Your task to perform on an android device: Go to CNN.com Image 0: 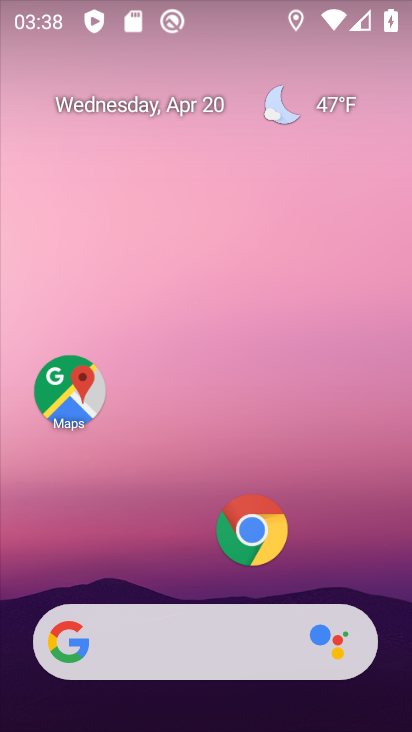
Step 0: click (264, 527)
Your task to perform on an android device: Go to CNN.com Image 1: 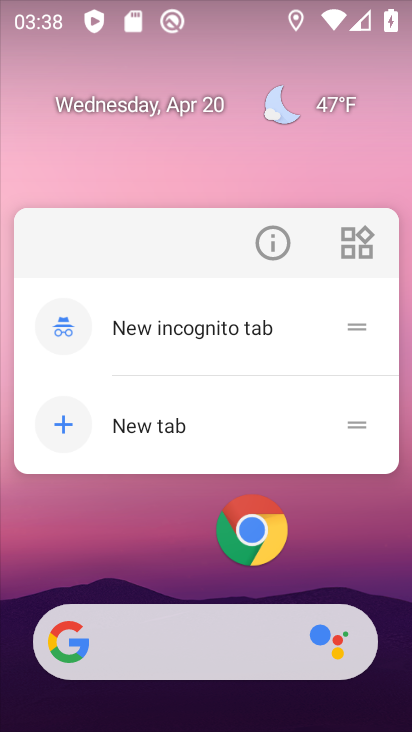
Step 1: click (257, 516)
Your task to perform on an android device: Go to CNN.com Image 2: 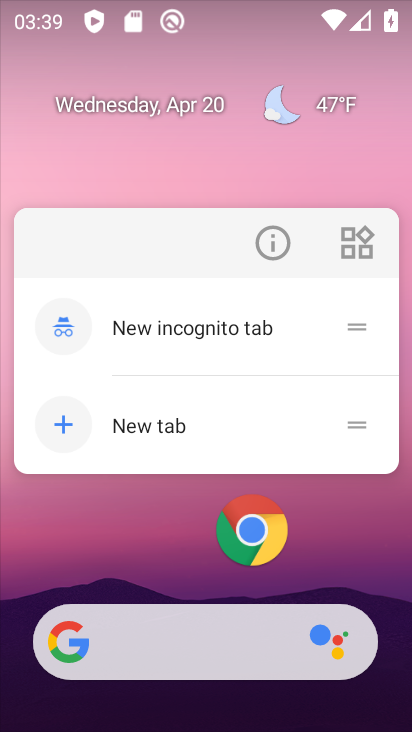
Step 2: click (241, 525)
Your task to perform on an android device: Go to CNN.com Image 3: 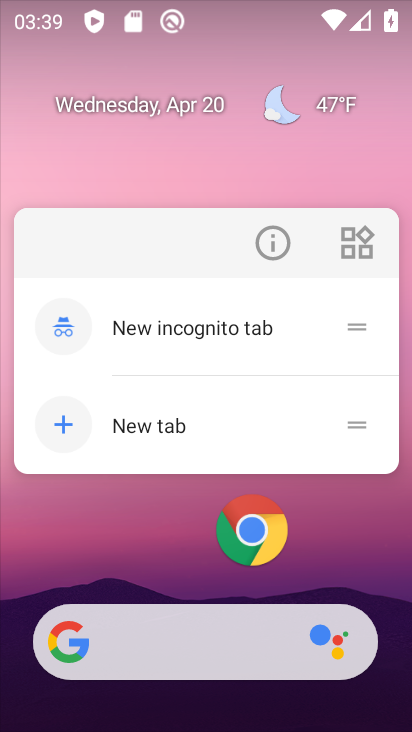
Step 3: click (261, 531)
Your task to perform on an android device: Go to CNN.com Image 4: 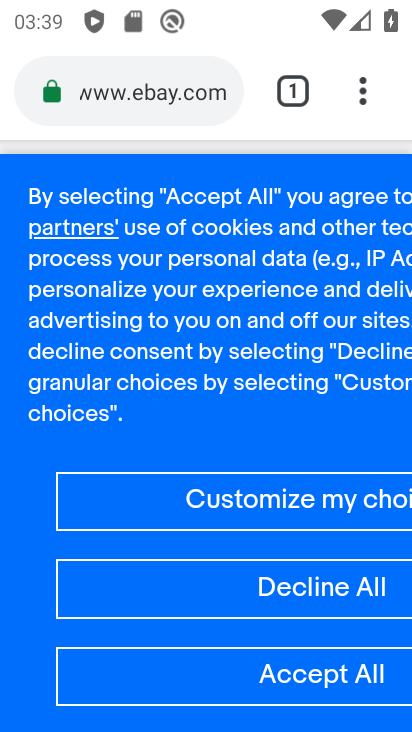
Step 4: click (277, 97)
Your task to perform on an android device: Go to CNN.com Image 5: 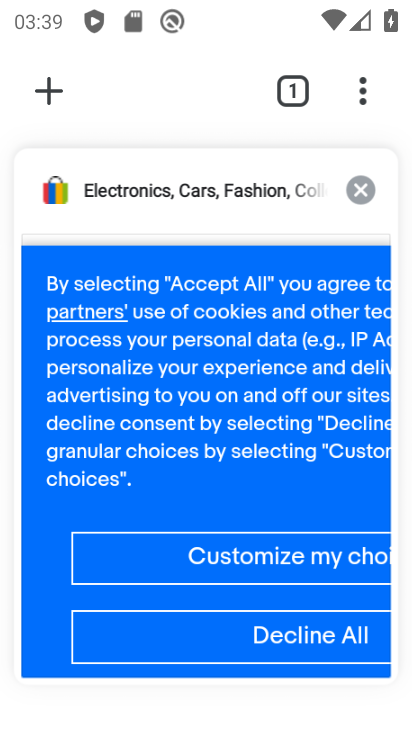
Step 5: click (54, 85)
Your task to perform on an android device: Go to CNN.com Image 6: 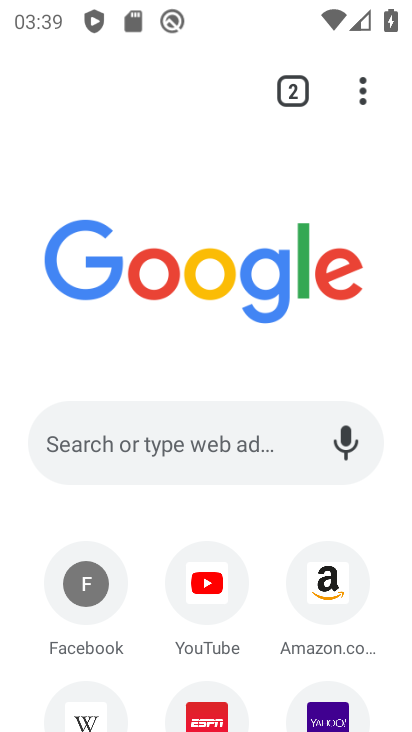
Step 6: click (172, 430)
Your task to perform on an android device: Go to CNN.com Image 7: 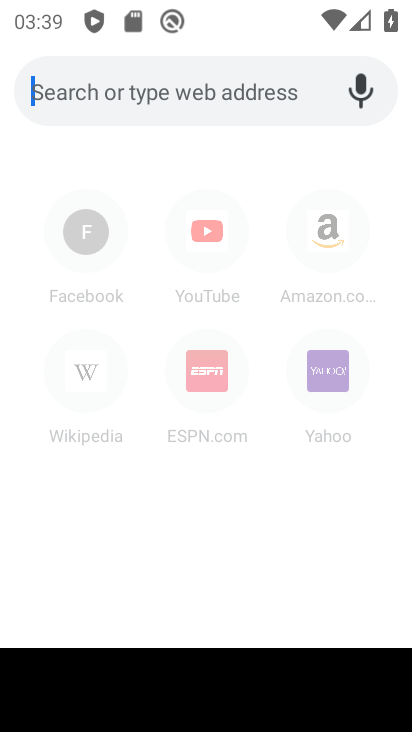
Step 7: type "cnn.com"
Your task to perform on an android device: Go to CNN.com Image 8: 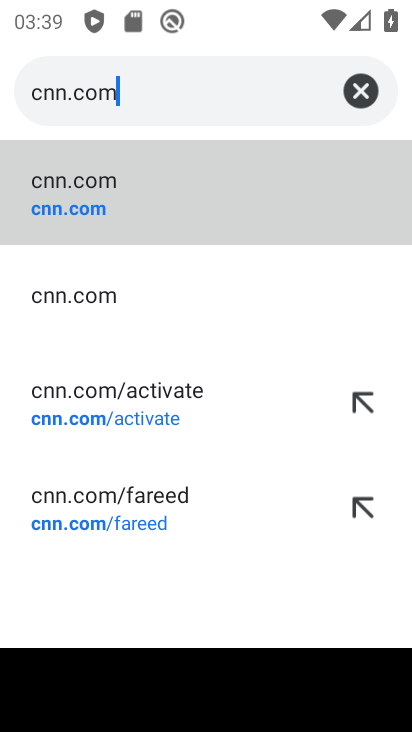
Step 8: click (191, 186)
Your task to perform on an android device: Go to CNN.com Image 9: 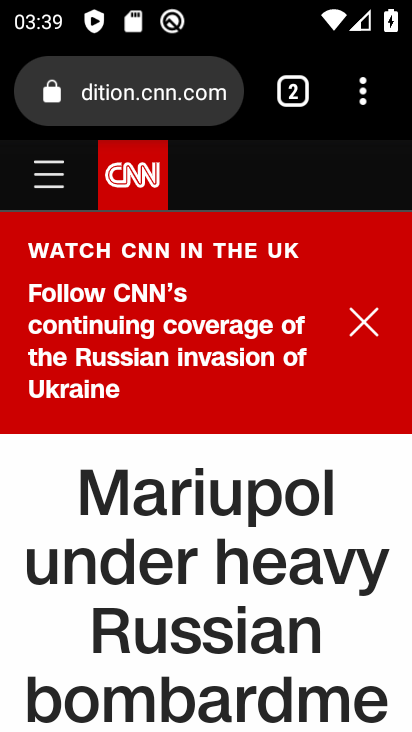
Step 9: task complete